Your task to perform on an android device: turn off picture-in-picture Image 0: 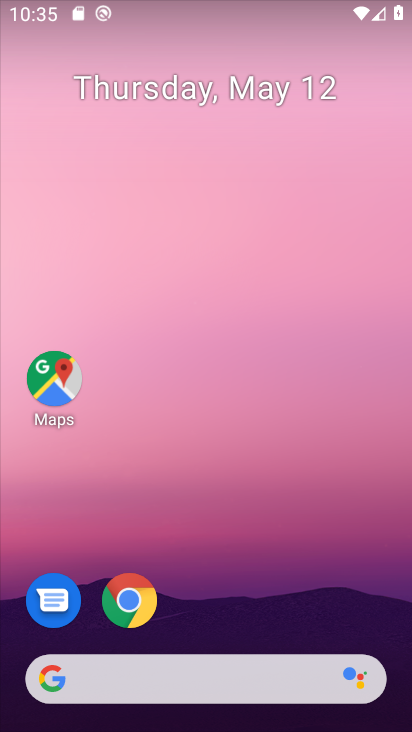
Step 0: drag from (209, 517) to (100, 119)
Your task to perform on an android device: turn off picture-in-picture Image 1: 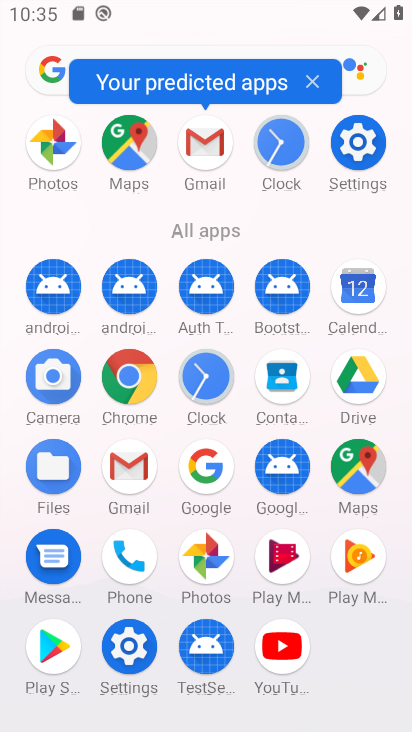
Step 1: click (349, 146)
Your task to perform on an android device: turn off picture-in-picture Image 2: 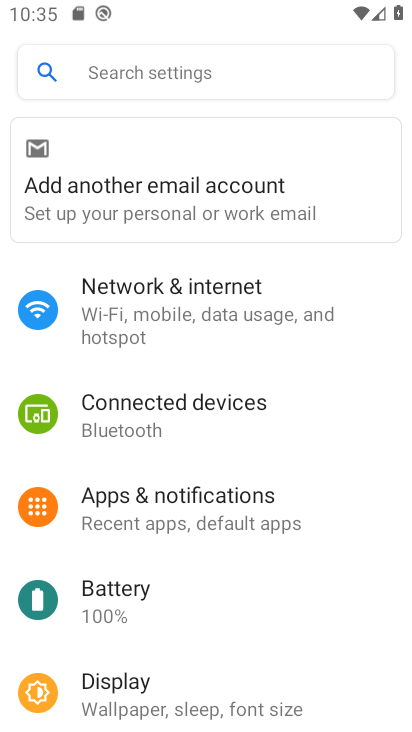
Step 2: click (140, 503)
Your task to perform on an android device: turn off picture-in-picture Image 3: 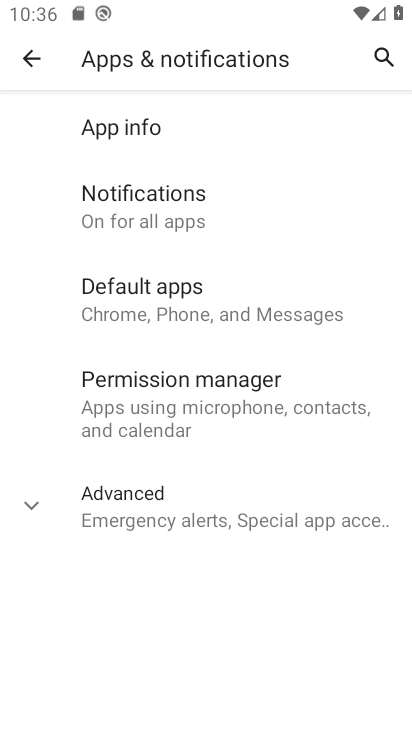
Step 3: click (132, 524)
Your task to perform on an android device: turn off picture-in-picture Image 4: 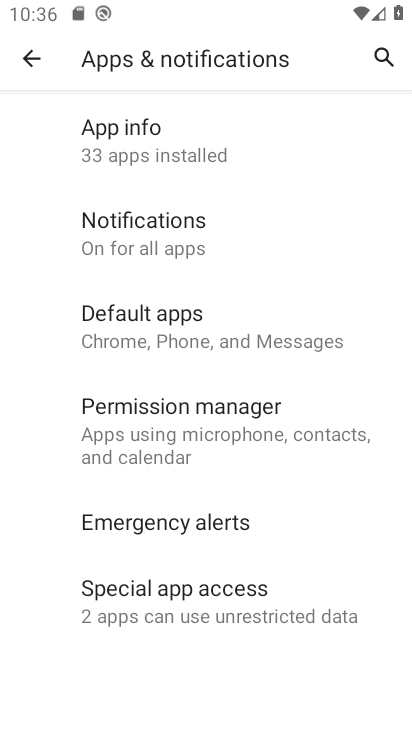
Step 4: click (145, 573)
Your task to perform on an android device: turn off picture-in-picture Image 5: 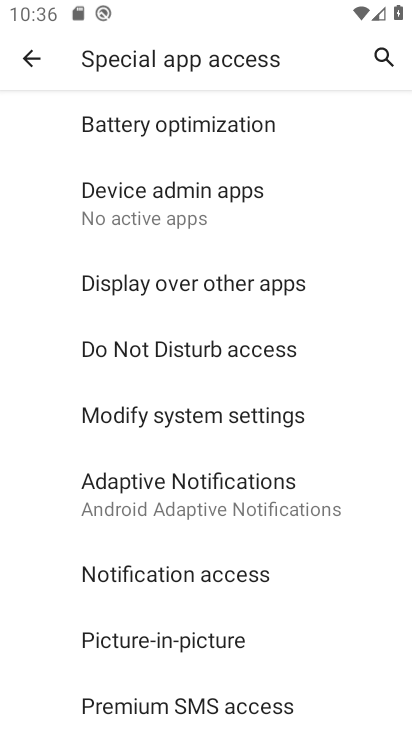
Step 5: click (153, 641)
Your task to perform on an android device: turn off picture-in-picture Image 6: 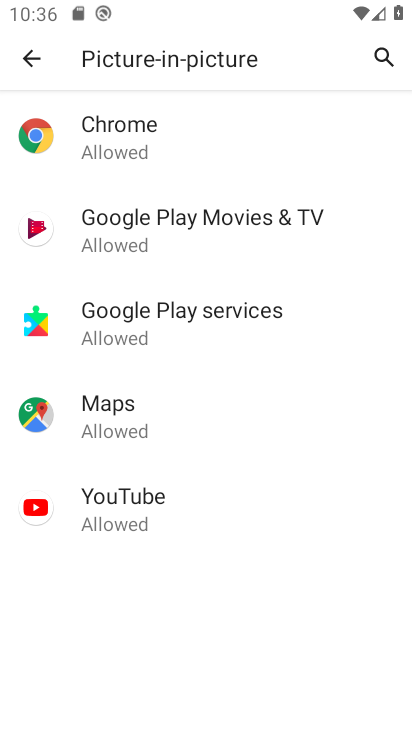
Step 6: click (120, 521)
Your task to perform on an android device: turn off picture-in-picture Image 7: 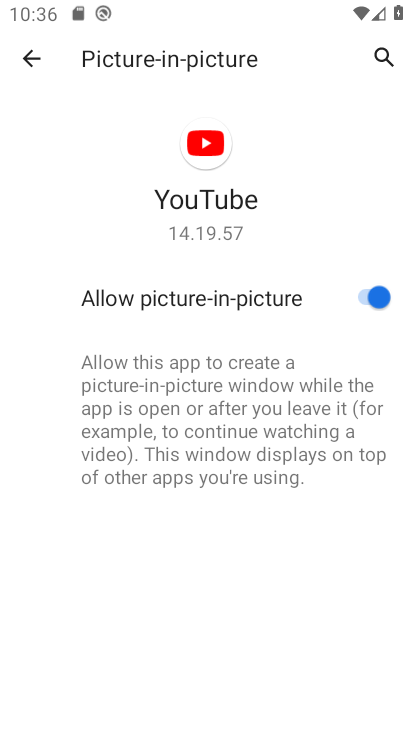
Step 7: click (372, 300)
Your task to perform on an android device: turn off picture-in-picture Image 8: 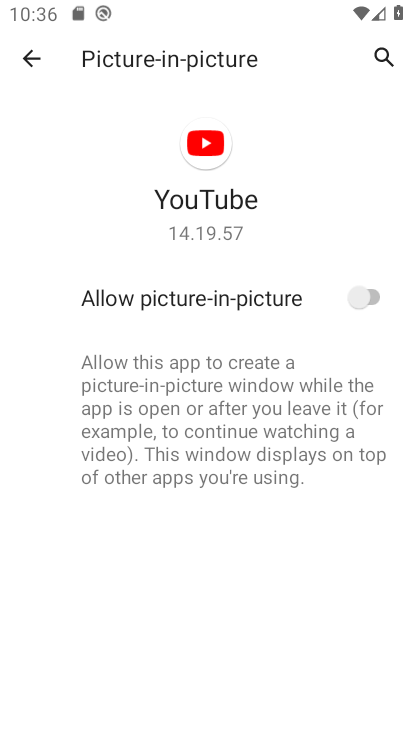
Step 8: task complete